Your task to perform on an android device: Open Chrome and go to settings Image 0: 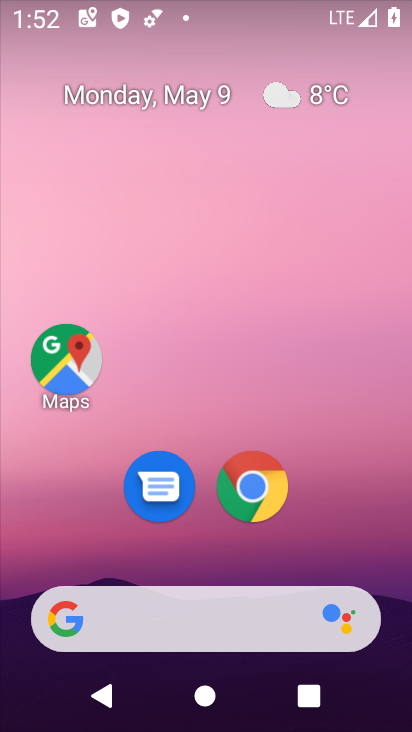
Step 0: click (278, 474)
Your task to perform on an android device: Open Chrome and go to settings Image 1: 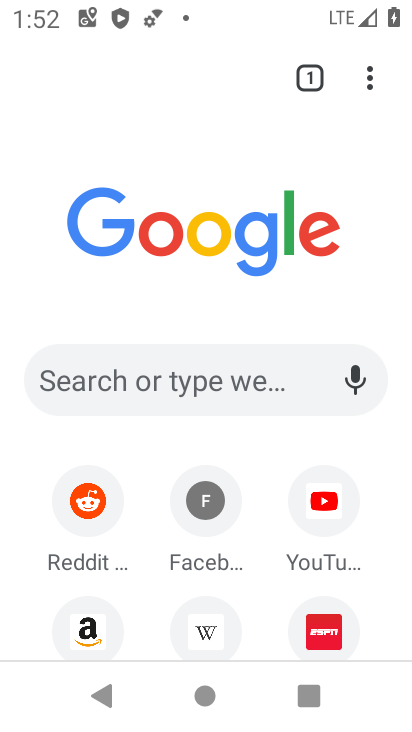
Step 1: click (379, 61)
Your task to perform on an android device: Open Chrome and go to settings Image 2: 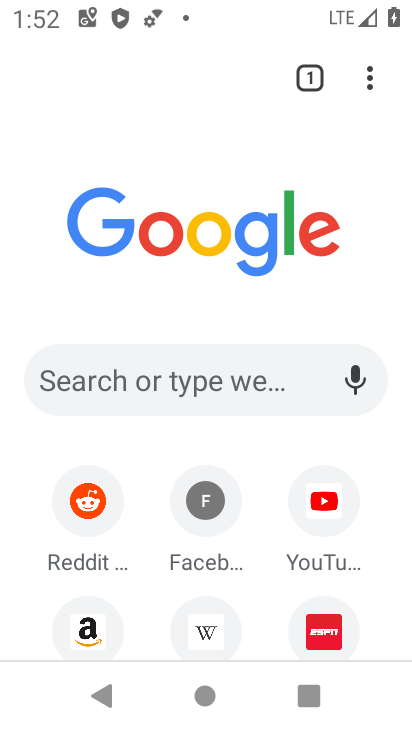
Step 2: click (366, 76)
Your task to perform on an android device: Open Chrome and go to settings Image 3: 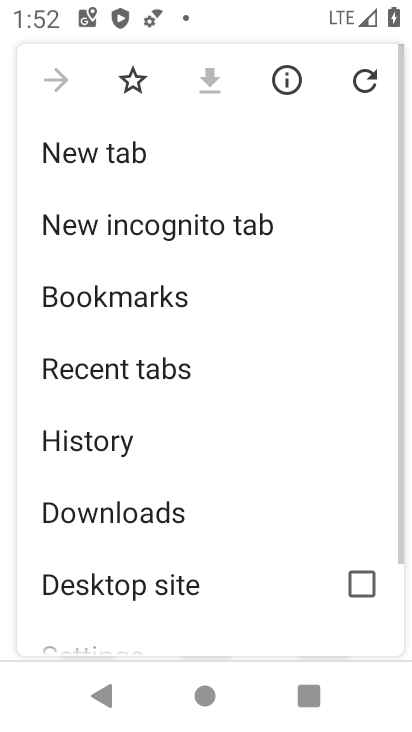
Step 3: drag from (218, 513) to (295, 109)
Your task to perform on an android device: Open Chrome and go to settings Image 4: 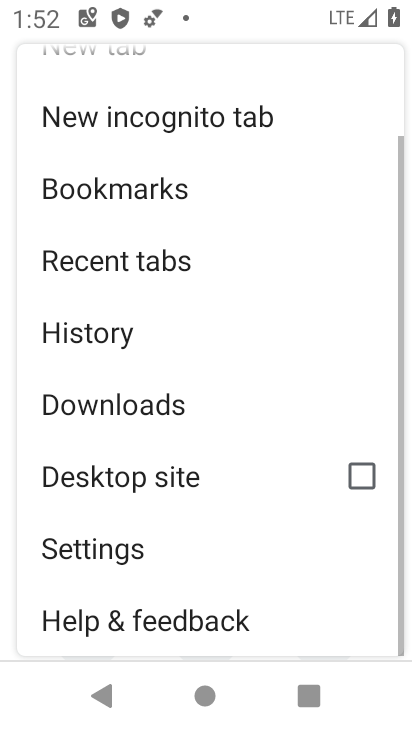
Step 4: drag from (226, 590) to (292, 282)
Your task to perform on an android device: Open Chrome and go to settings Image 5: 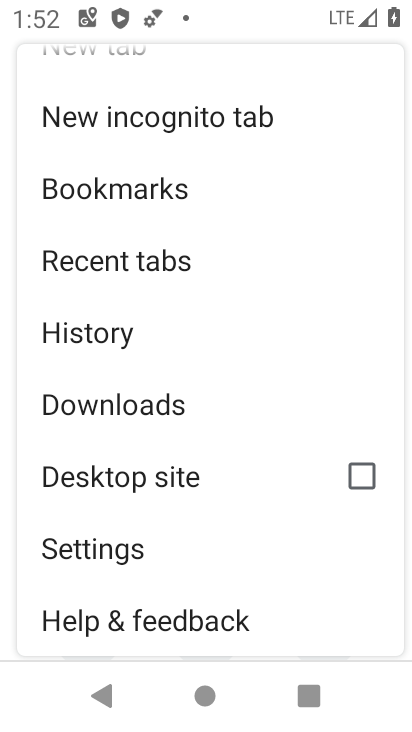
Step 5: click (231, 545)
Your task to perform on an android device: Open Chrome and go to settings Image 6: 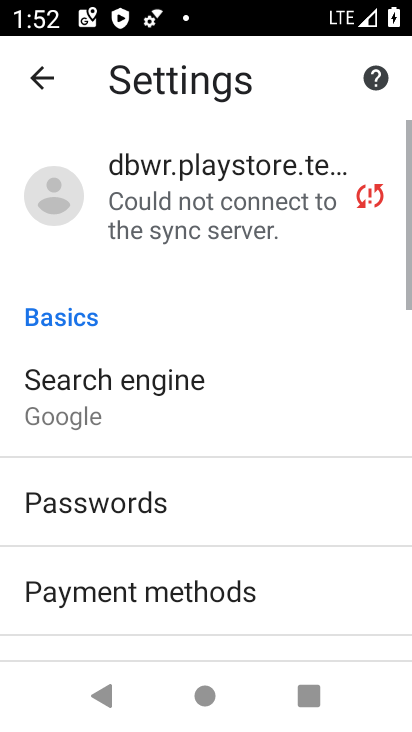
Step 6: task complete